Your task to perform on an android device: Open calendar and show me the third week of next month Image 0: 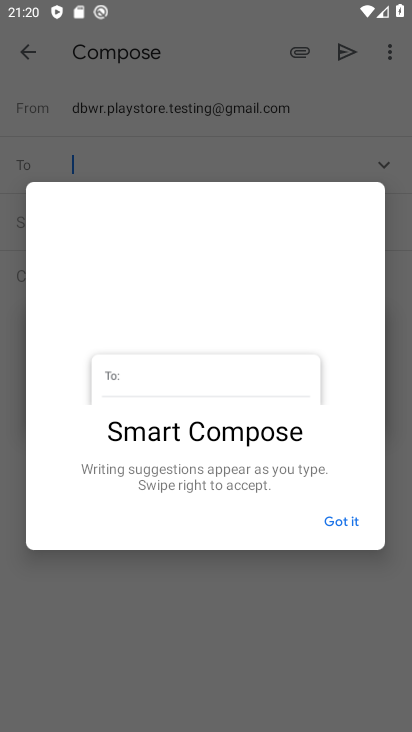
Step 0: press home button
Your task to perform on an android device: Open calendar and show me the third week of next month Image 1: 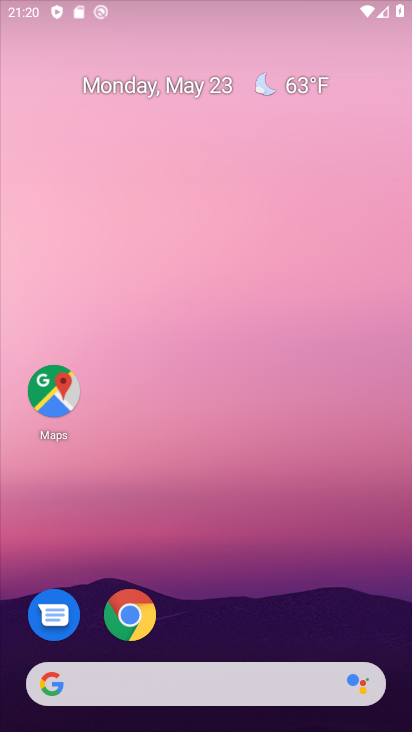
Step 1: drag from (245, 598) to (300, 35)
Your task to perform on an android device: Open calendar and show me the third week of next month Image 2: 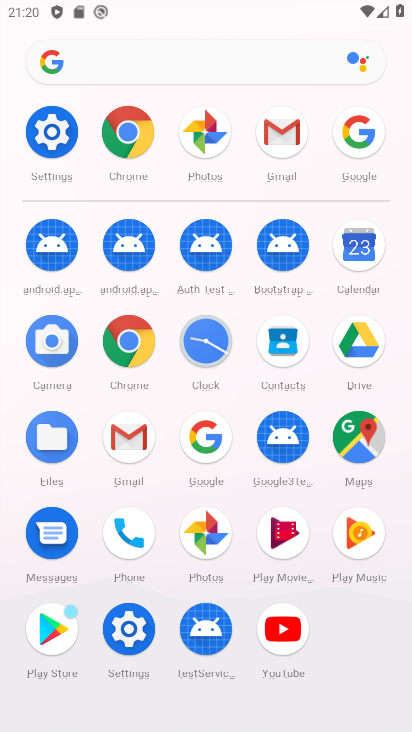
Step 2: click (367, 244)
Your task to perform on an android device: Open calendar and show me the third week of next month Image 3: 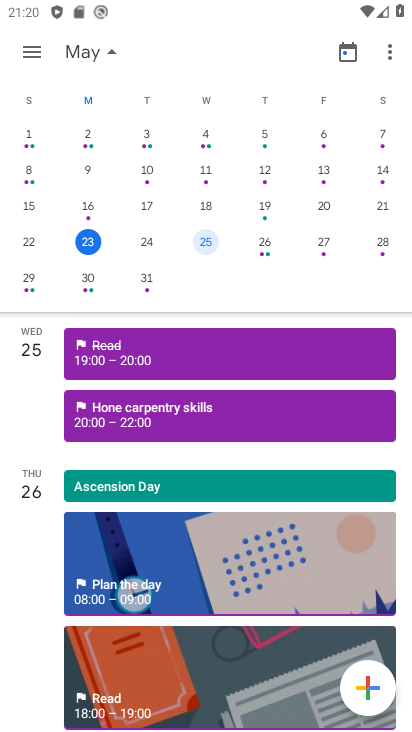
Step 3: drag from (378, 283) to (52, 277)
Your task to perform on an android device: Open calendar and show me the third week of next month Image 4: 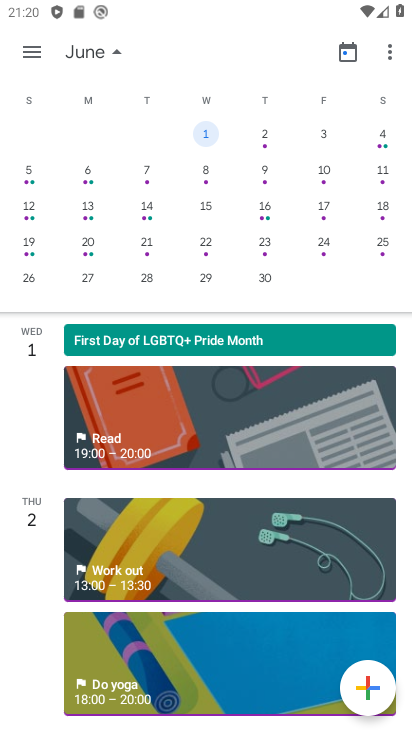
Step 4: click (215, 205)
Your task to perform on an android device: Open calendar and show me the third week of next month Image 5: 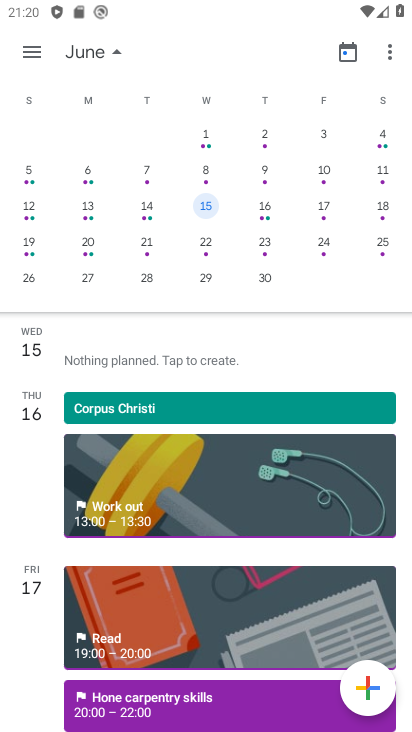
Step 5: task complete